Your task to perform on an android device: Add razer blade to the cart on costco, then select checkout. Image 0: 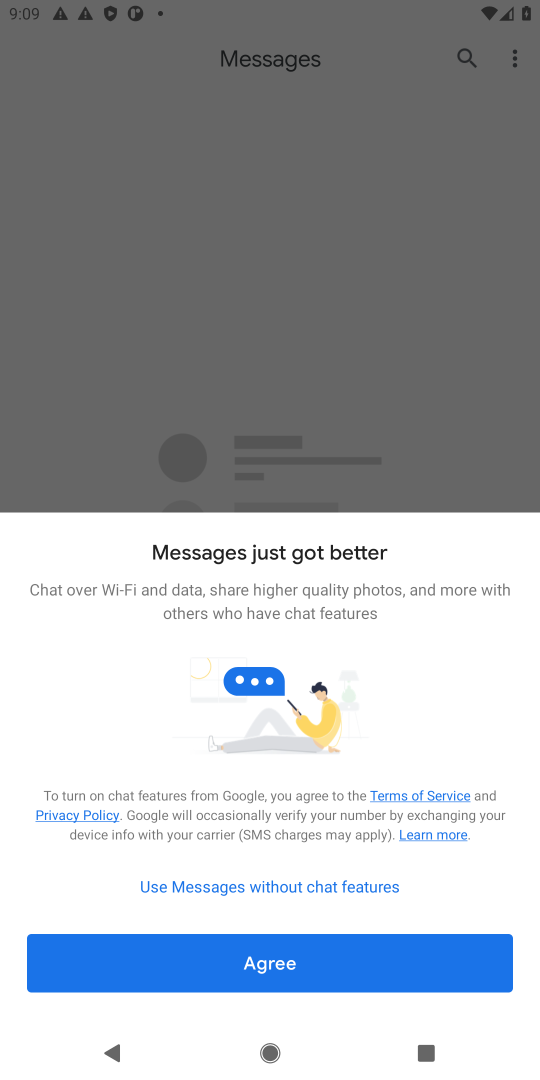
Step 0: press home button
Your task to perform on an android device: Add razer blade to the cart on costco, then select checkout. Image 1: 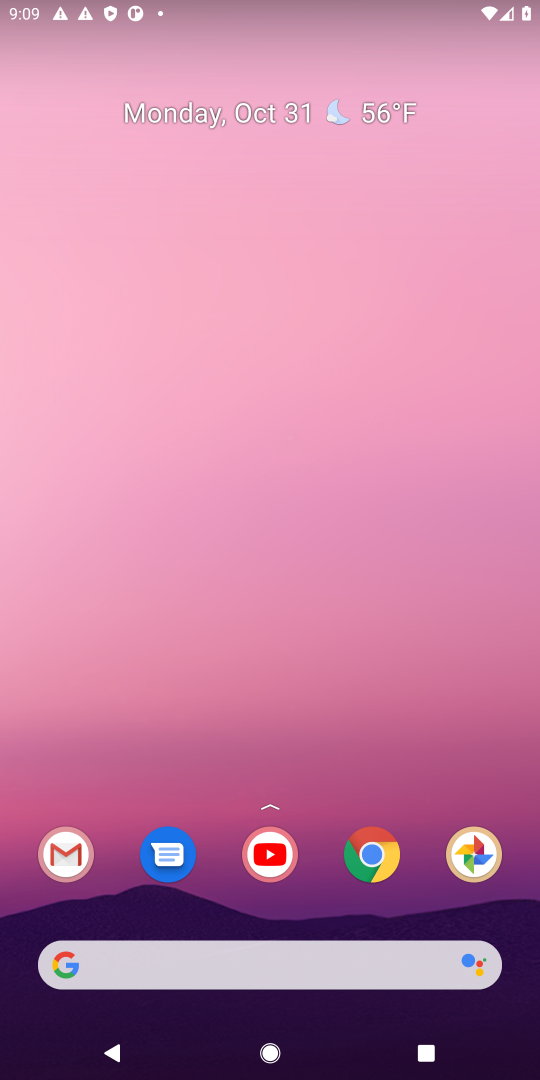
Step 1: click (190, 975)
Your task to perform on an android device: Add razer blade to the cart on costco, then select checkout. Image 2: 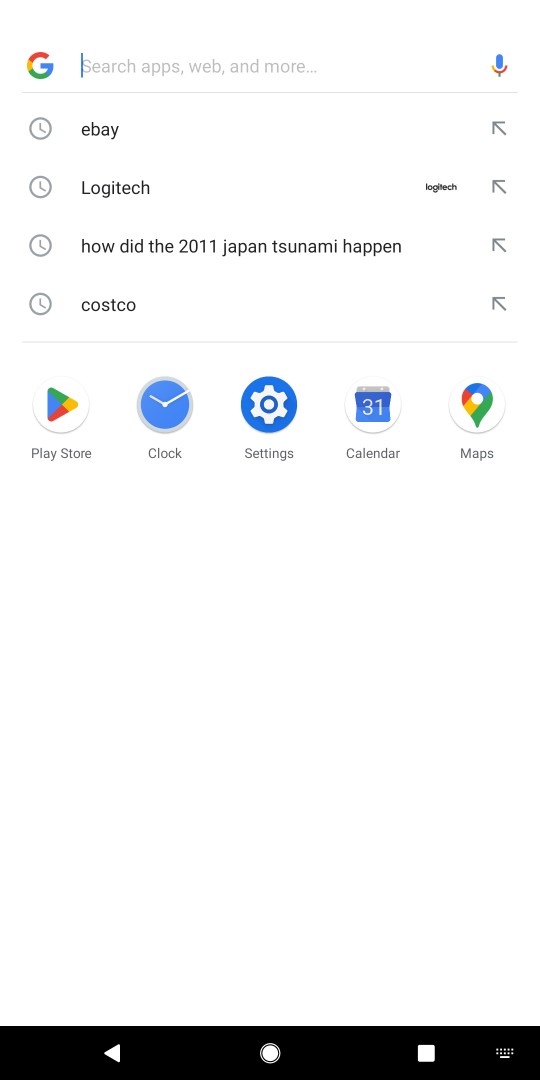
Step 2: type "razer blade"
Your task to perform on an android device: Add razer blade to the cart on costco, then select checkout. Image 3: 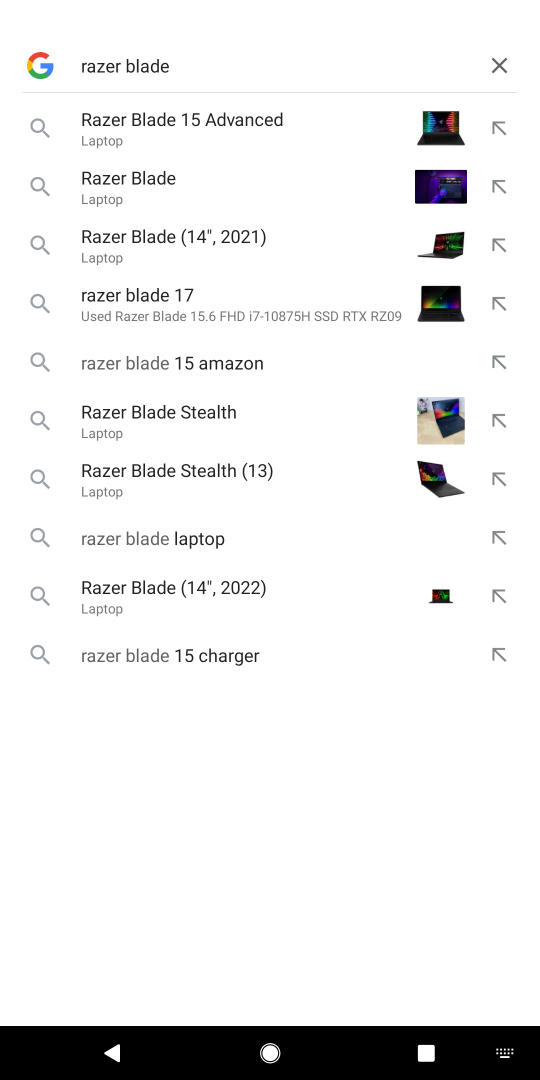
Step 3: click (137, 133)
Your task to perform on an android device: Add razer blade to the cart on costco, then select checkout. Image 4: 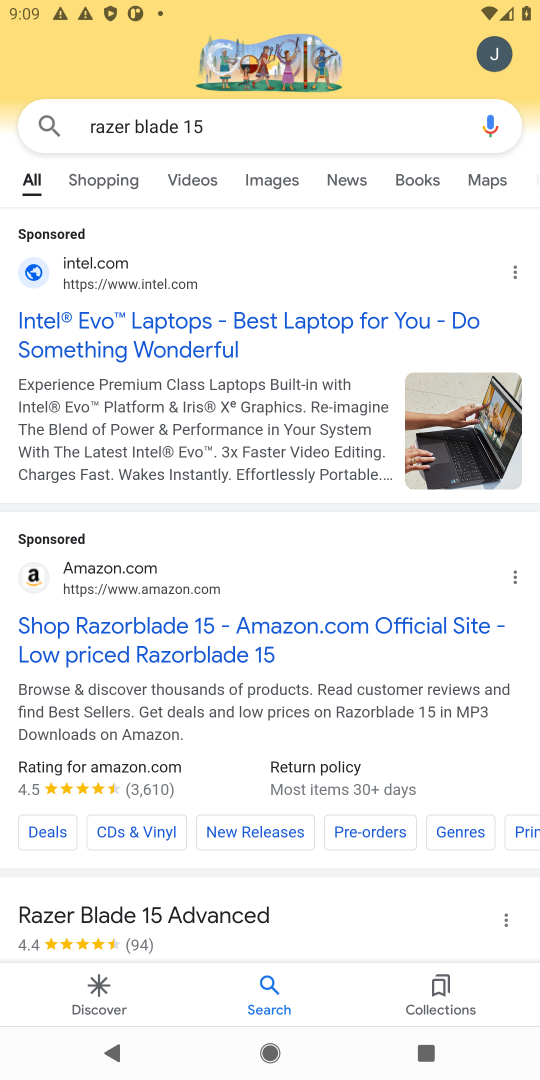
Step 4: click (194, 341)
Your task to perform on an android device: Add razer blade to the cart on costco, then select checkout. Image 5: 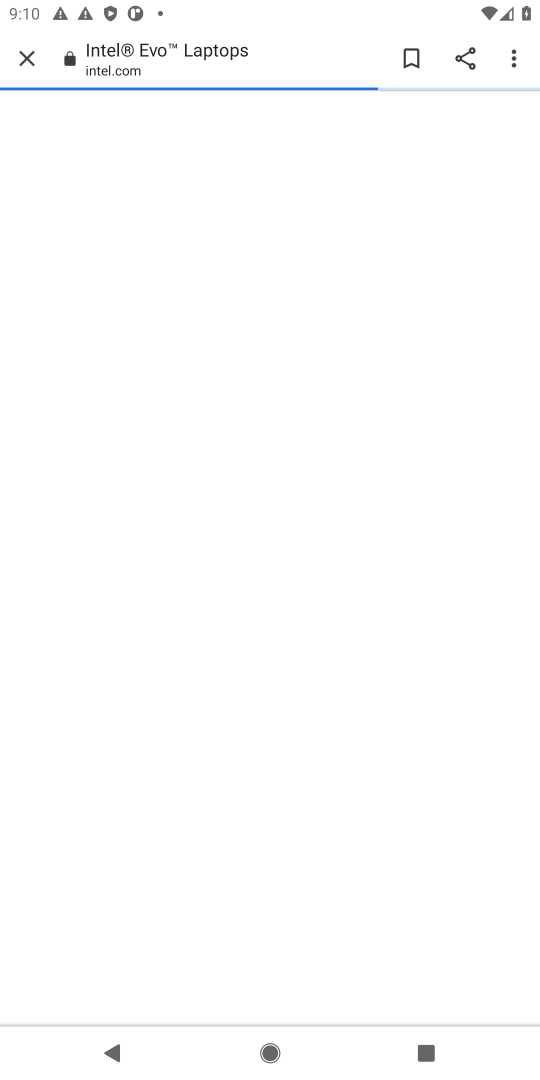
Step 5: task complete